Your task to perform on an android device: Open internet settings Image 0: 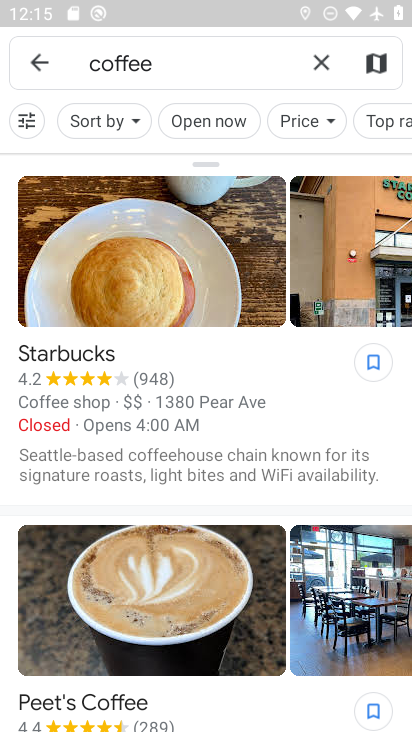
Step 0: press home button
Your task to perform on an android device: Open internet settings Image 1: 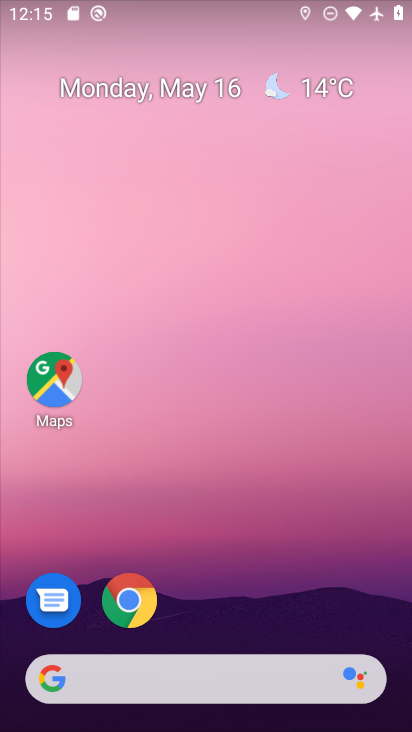
Step 1: drag from (397, 627) to (270, 38)
Your task to perform on an android device: Open internet settings Image 2: 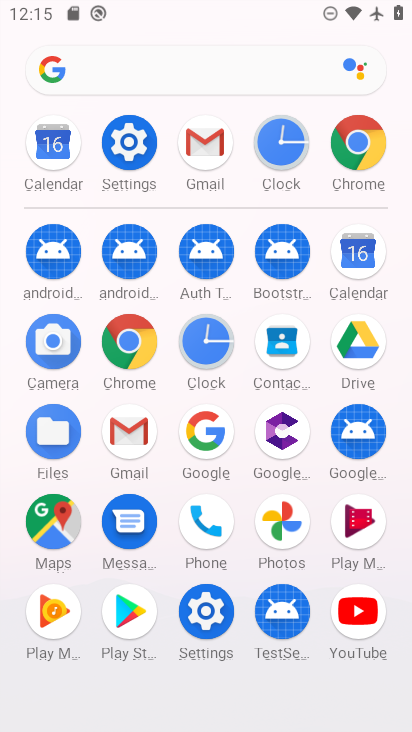
Step 2: click (204, 610)
Your task to perform on an android device: Open internet settings Image 3: 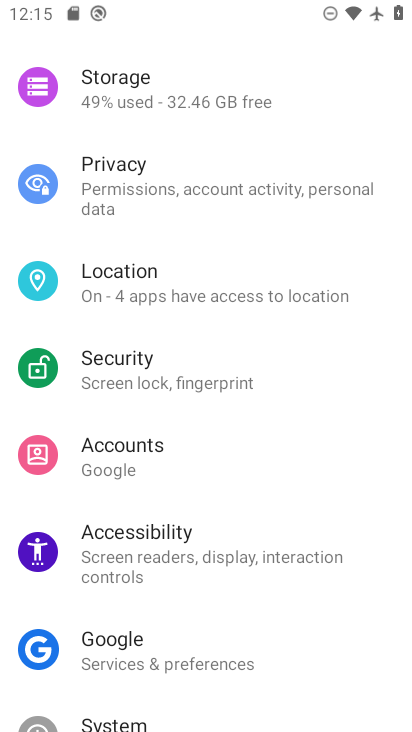
Step 3: drag from (372, 156) to (353, 588)
Your task to perform on an android device: Open internet settings Image 4: 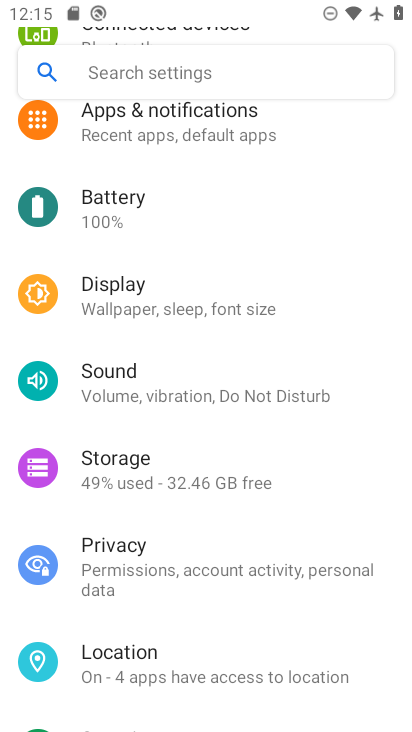
Step 4: drag from (355, 139) to (388, 473)
Your task to perform on an android device: Open internet settings Image 5: 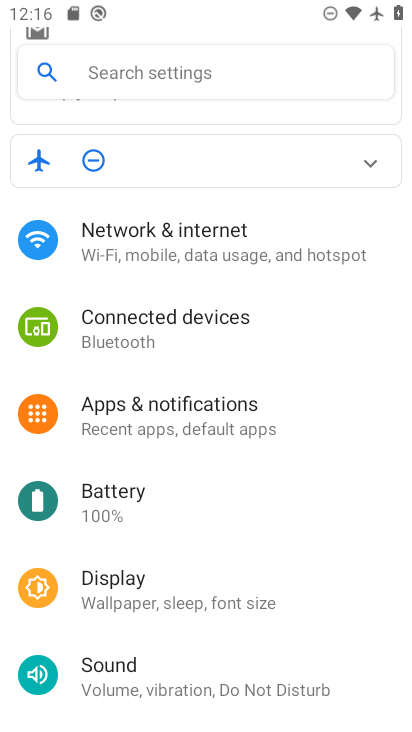
Step 5: click (144, 240)
Your task to perform on an android device: Open internet settings Image 6: 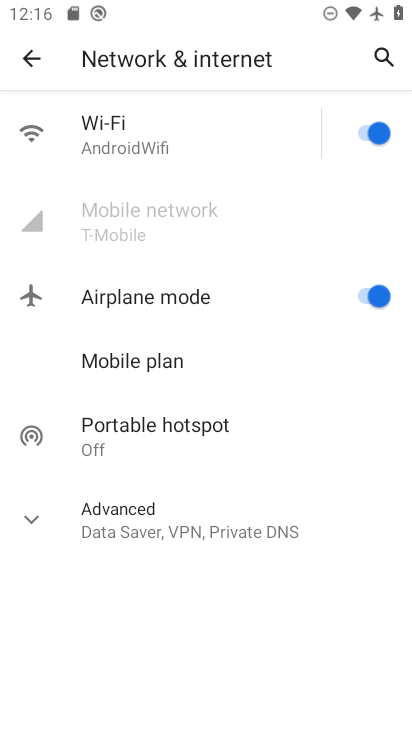
Step 6: click (360, 299)
Your task to perform on an android device: Open internet settings Image 7: 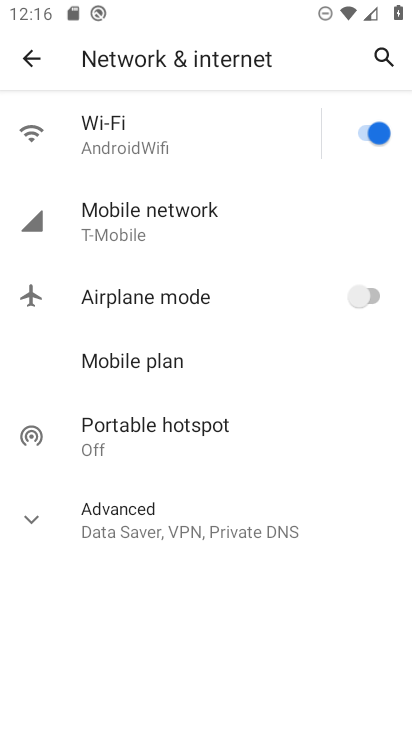
Step 7: click (134, 211)
Your task to perform on an android device: Open internet settings Image 8: 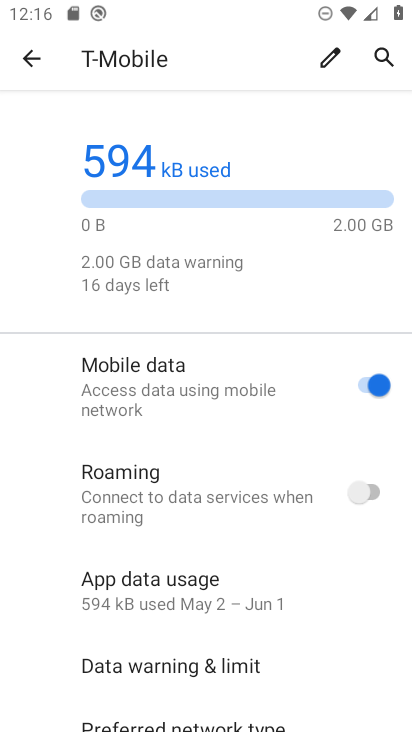
Step 8: drag from (264, 628) to (250, 263)
Your task to perform on an android device: Open internet settings Image 9: 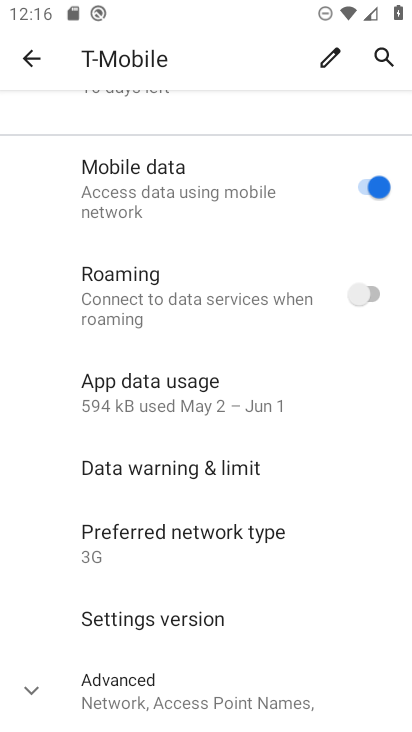
Step 9: click (28, 686)
Your task to perform on an android device: Open internet settings Image 10: 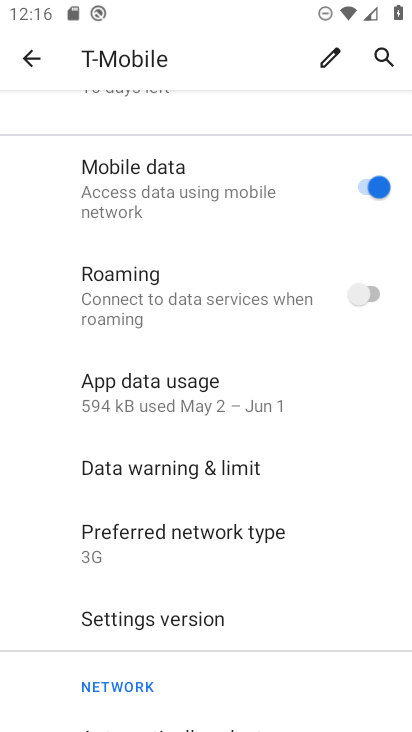
Step 10: task complete